Your task to perform on an android device: Go to location settings Image 0: 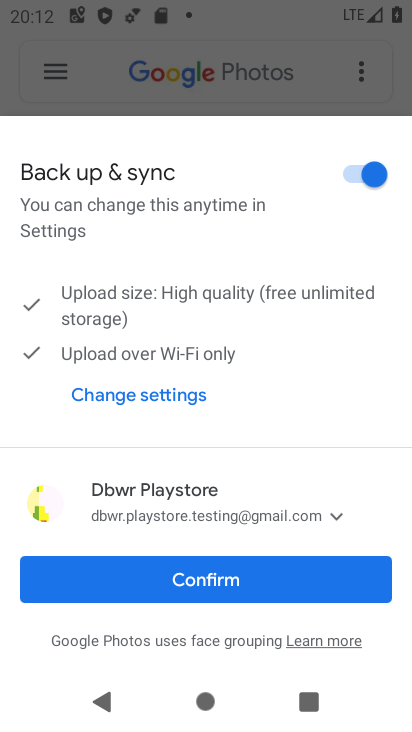
Step 0: press home button
Your task to perform on an android device: Go to location settings Image 1: 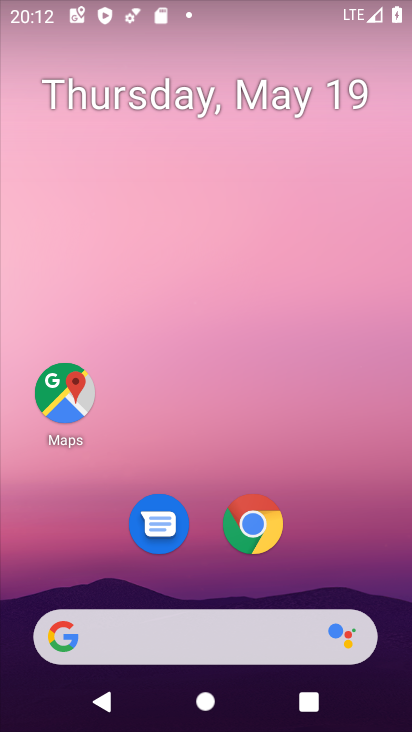
Step 1: drag from (324, 514) to (334, 89)
Your task to perform on an android device: Go to location settings Image 2: 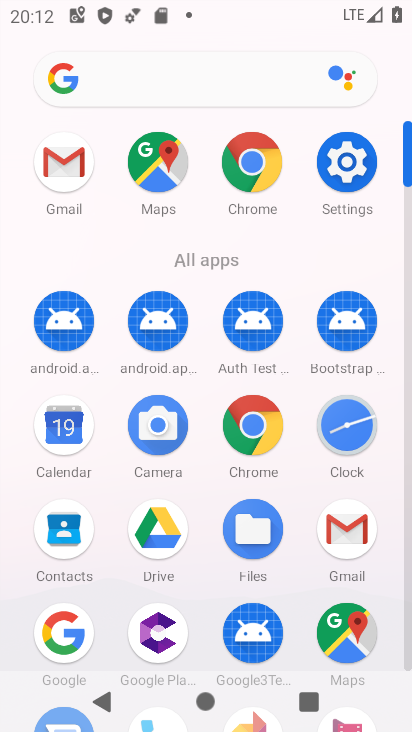
Step 2: click (347, 169)
Your task to perform on an android device: Go to location settings Image 3: 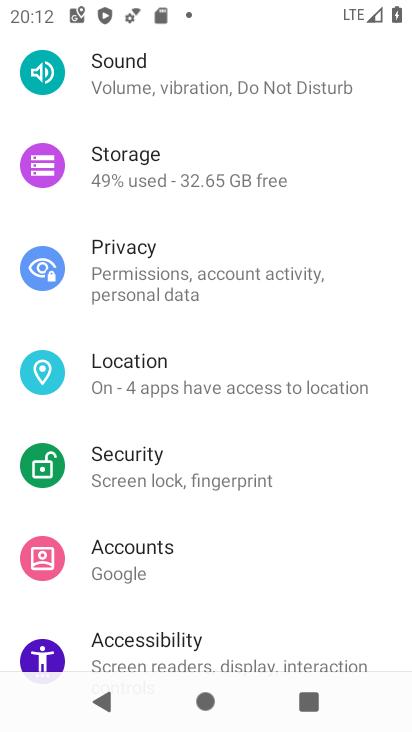
Step 3: click (255, 375)
Your task to perform on an android device: Go to location settings Image 4: 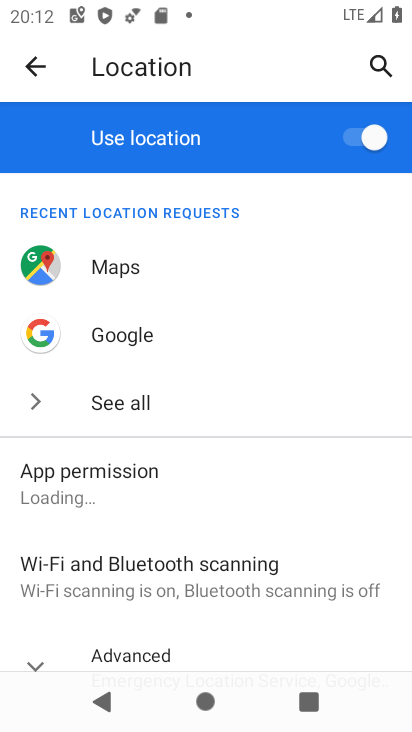
Step 4: task complete